Your task to perform on an android device: What's the weather going to be this weekend? Image 0: 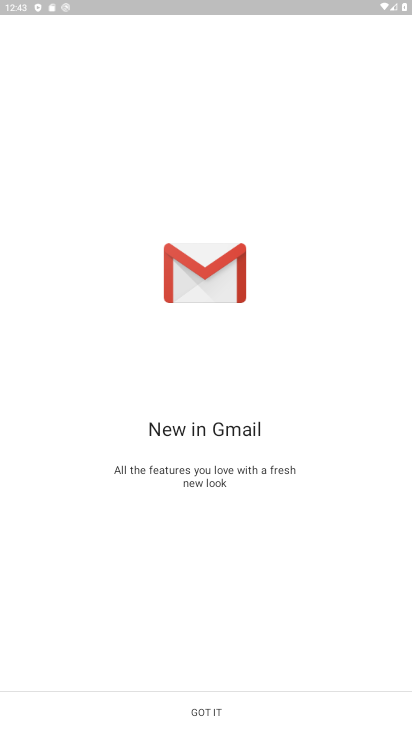
Step 0: press home button
Your task to perform on an android device: What's the weather going to be this weekend? Image 1: 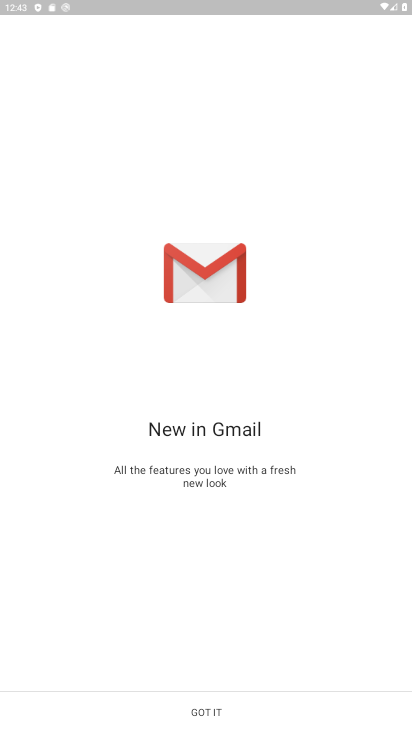
Step 1: click (220, 705)
Your task to perform on an android device: What's the weather going to be this weekend? Image 2: 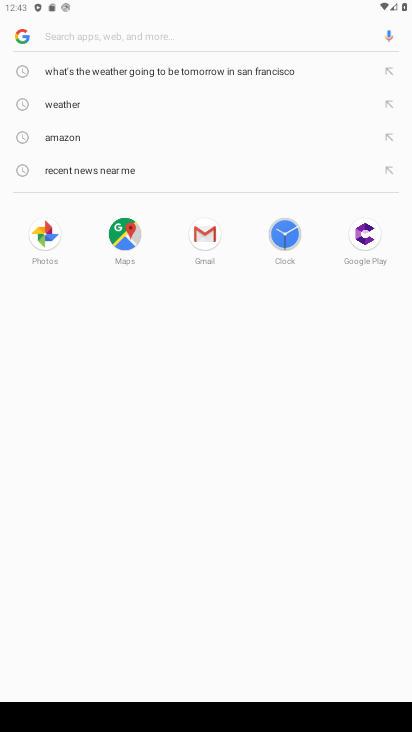
Step 2: press home button
Your task to perform on an android device: What's the weather going to be this weekend? Image 3: 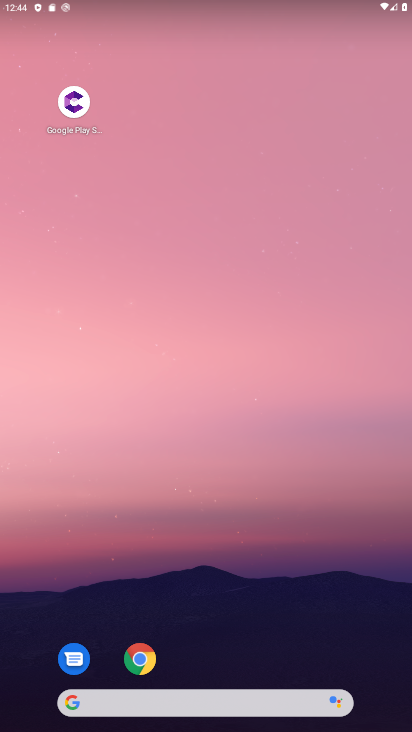
Step 3: drag from (288, 626) to (276, 93)
Your task to perform on an android device: What's the weather going to be this weekend? Image 4: 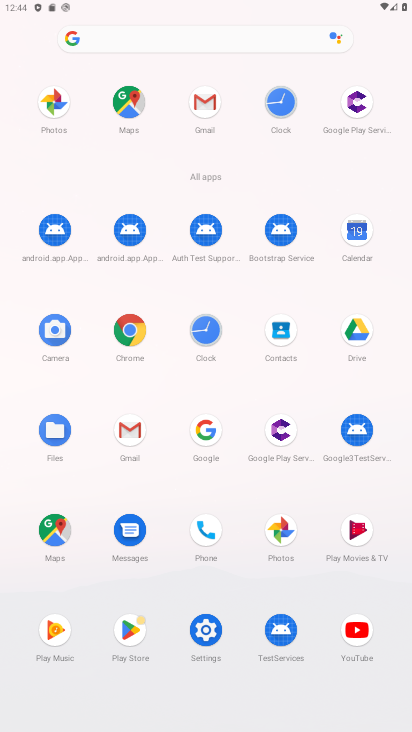
Step 4: click (135, 326)
Your task to perform on an android device: What's the weather going to be this weekend? Image 5: 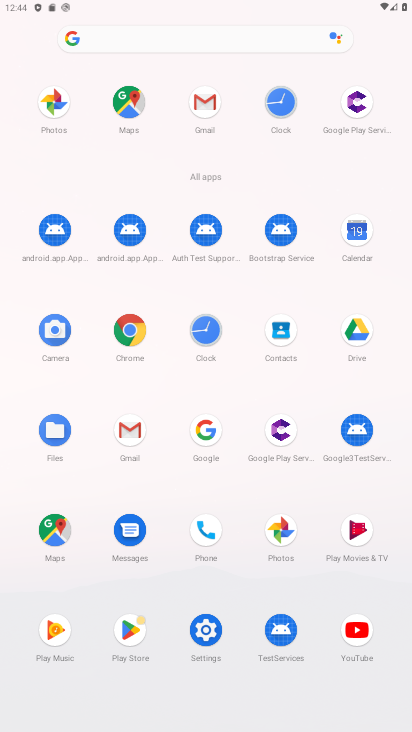
Step 5: click (130, 332)
Your task to perform on an android device: What's the weather going to be this weekend? Image 6: 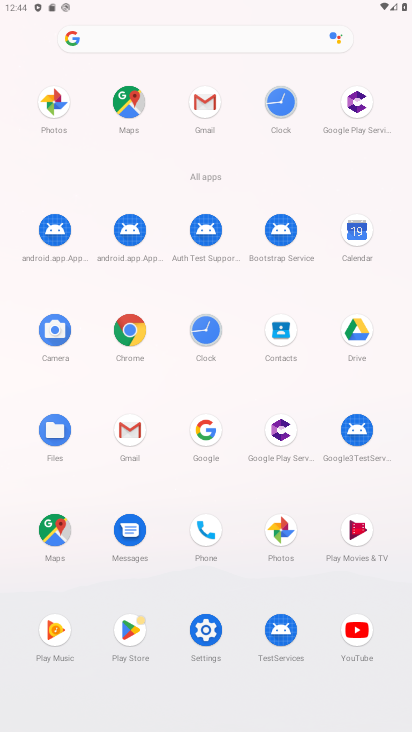
Step 6: click (128, 332)
Your task to perform on an android device: What's the weather going to be this weekend? Image 7: 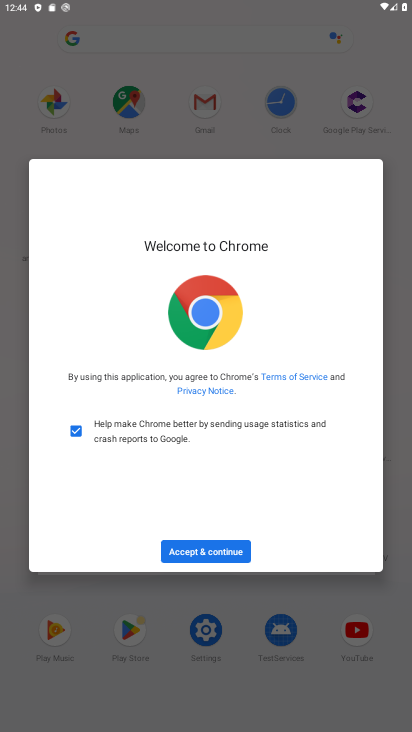
Step 7: click (210, 546)
Your task to perform on an android device: What's the weather going to be this weekend? Image 8: 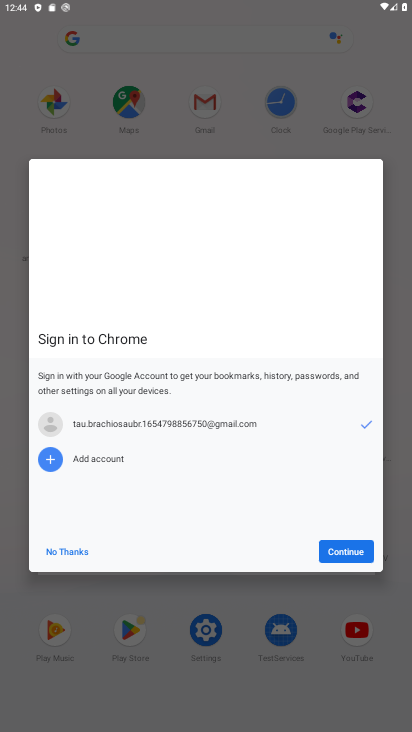
Step 8: click (353, 544)
Your task to perform on an android device: What's the weather going to be this weekend? Image 9: 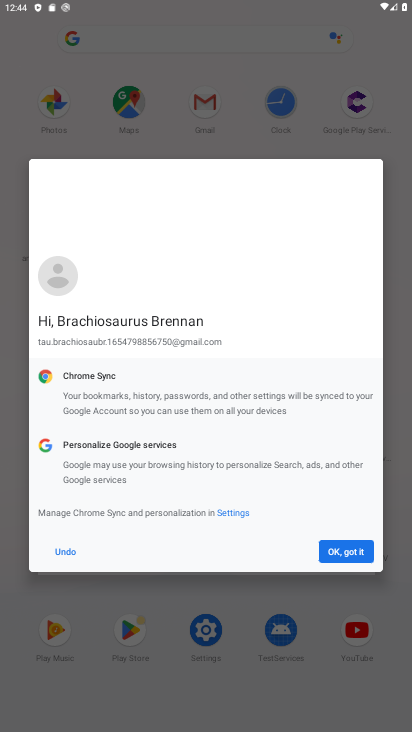
Step 9: click (349, 557)
Your task to perform on an android device: What's the weather going to be this weekend? Image 10: 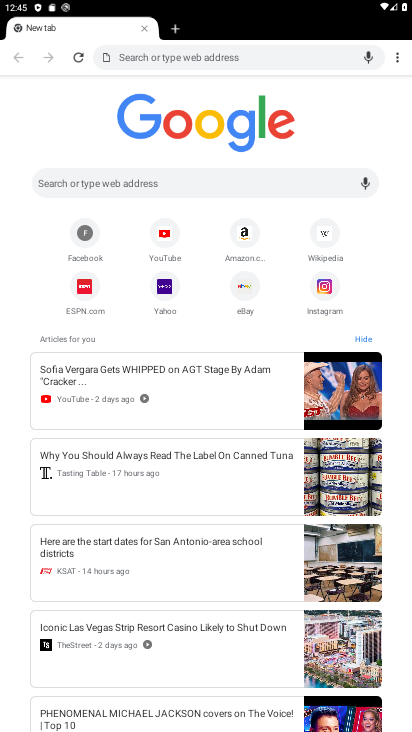
Step 10: type "weather"
Your task to perform on an android device: What's the weather going to be this weekend? Image 11: 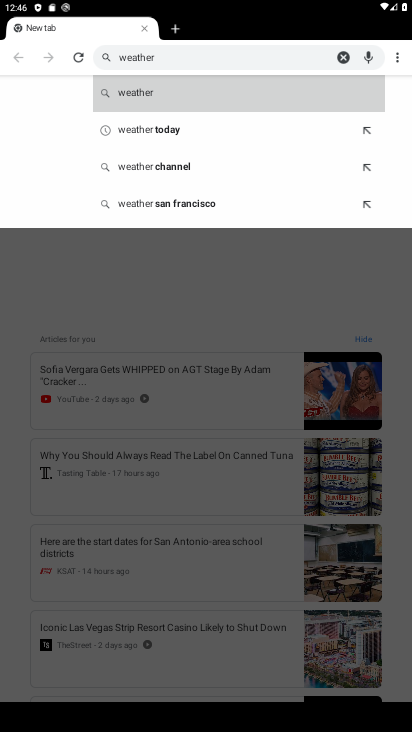
Step 11: click (148, 93)
Your task to perform on an android device: What's the weather going to be this weekend? Image 12: 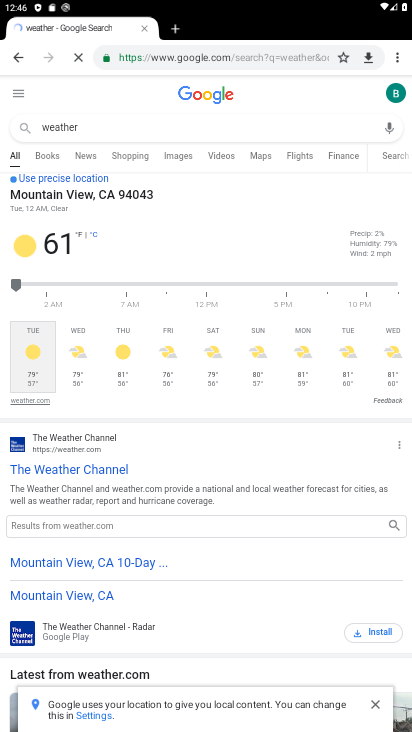
Step 12: click (219, 344)
Your task to perform on an android device: What's the weather going to be this weekend? Image 13: 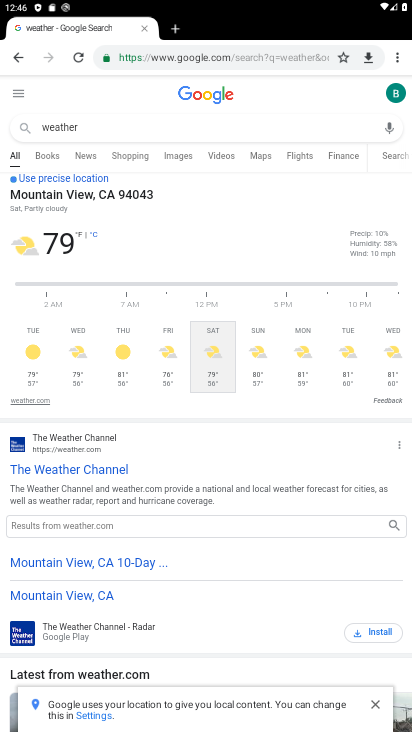
Step 13: task complete